Your task to perform on an android device: turn on airplane mode Image 0: 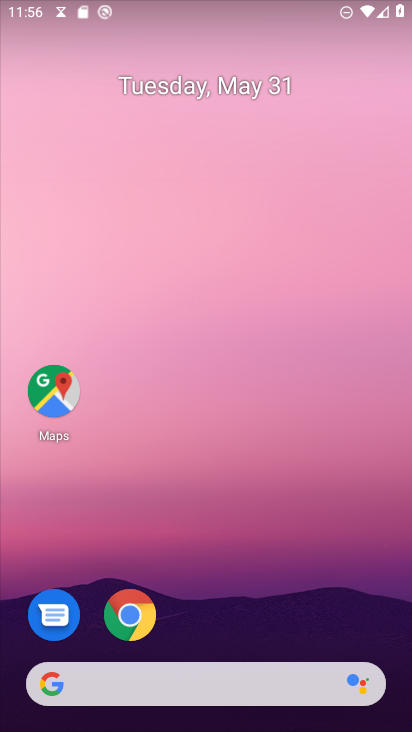
Step 0: drag from (378, 651) to (368, 118)
Your task to perform on an android device: turn on airplane mode Image 1: 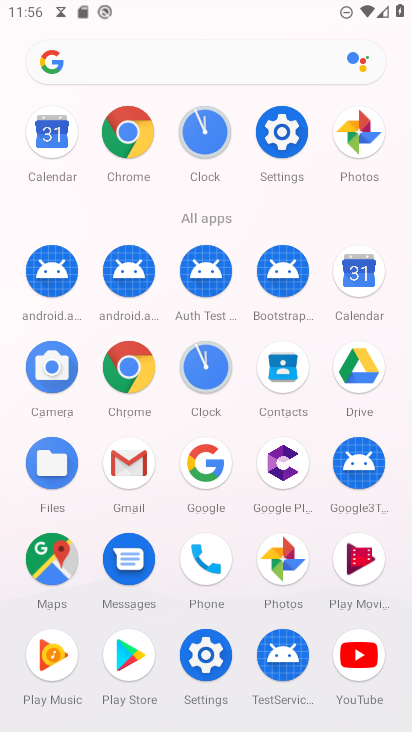
Step 1: click (284, 135)
Your task to perform on an android device: turn on airplane mode Image 2: 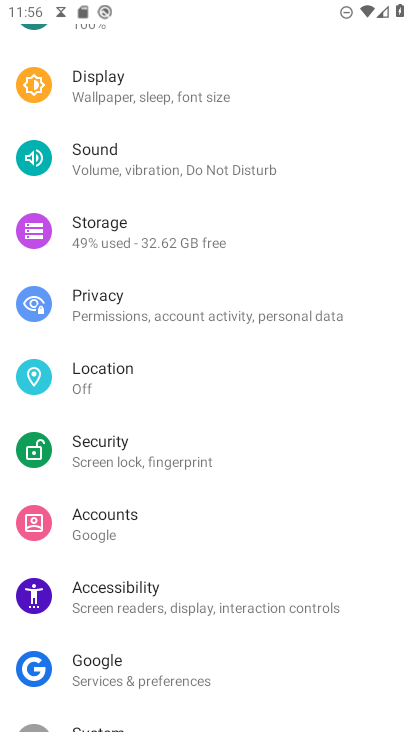
Step 2: drag from (212, 199) to (198, 638)
Your task to perform on an android device: turn on airplane mode Image 3: 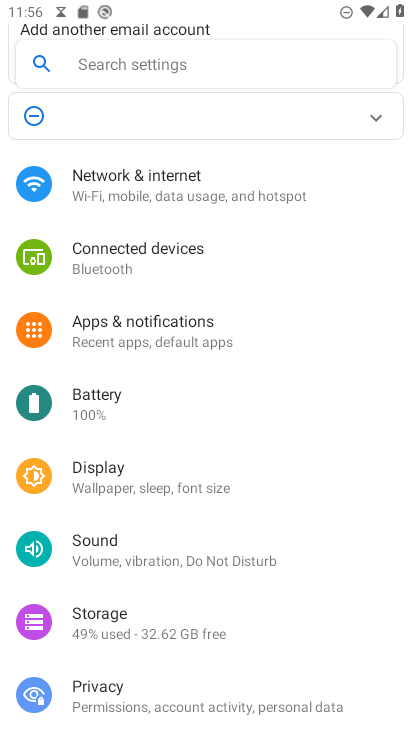
Step 3: click (134, 184)
Your task to perform on an android device: turn on airplane mode Image 4: 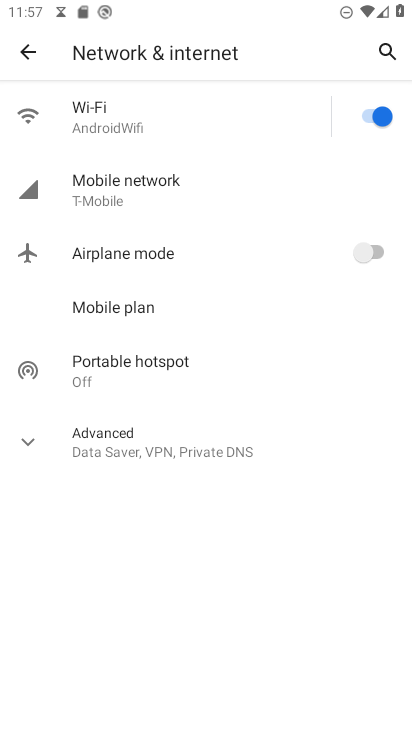
Step 4: click (381, 255)
Your task to perform on an android device: turn on airplane mode Image 5: 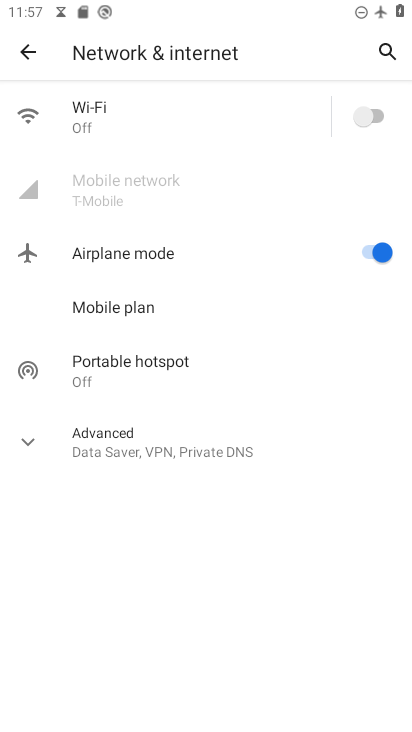
Step 5: task complete